Your task to perform on an android device: Open Wikipedia Image 0: 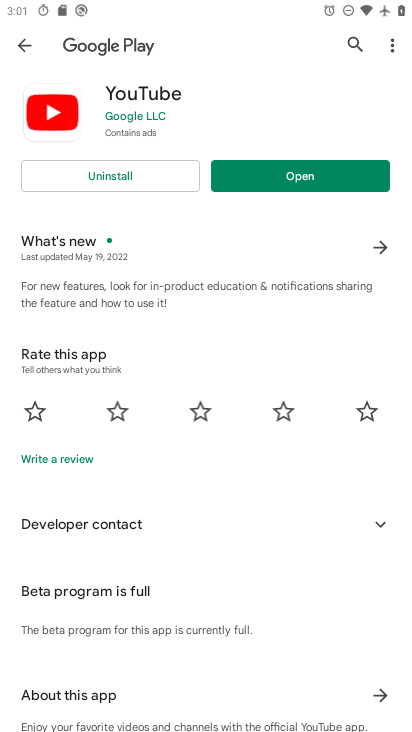
Step 0: press home button
Your task to perform on an android device: Open Wikipedia Image 1: 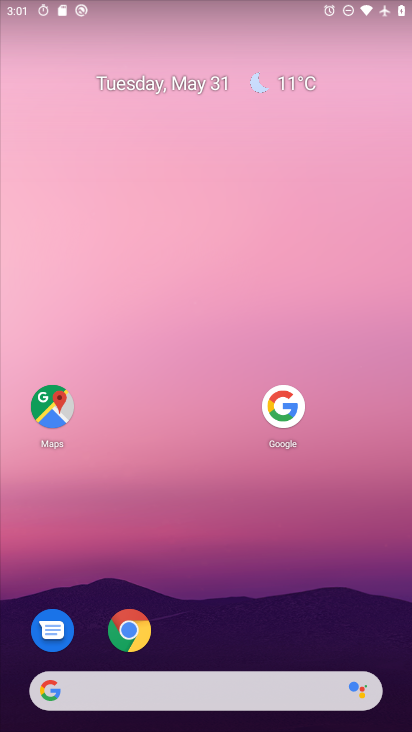
Step 1: click (129, 643)
Your task to perform on an android device: Open Wikipedia Image 2: 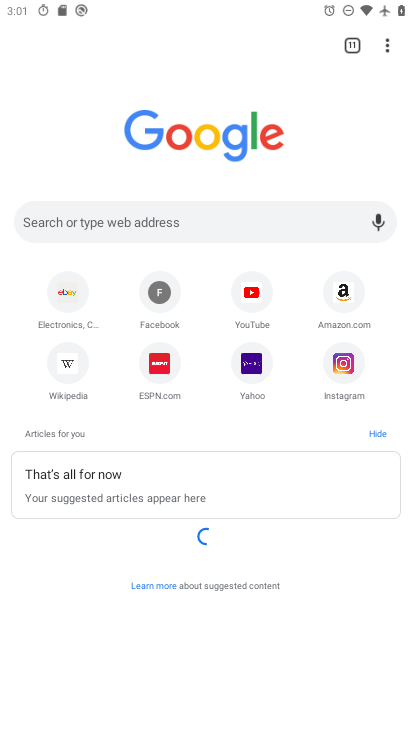
Step 2: click (67, 362)
Your task to perform on an android device: Open Wikipedia Image 3: 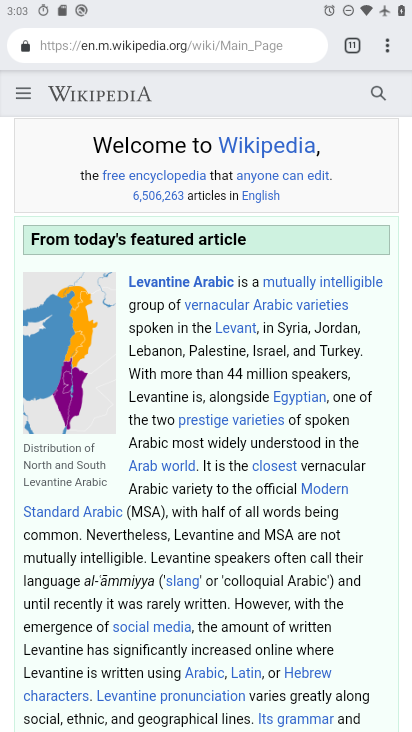
Step 3: task complete